Your task to perform on an android device: turn off picture-in-picture Image 0: 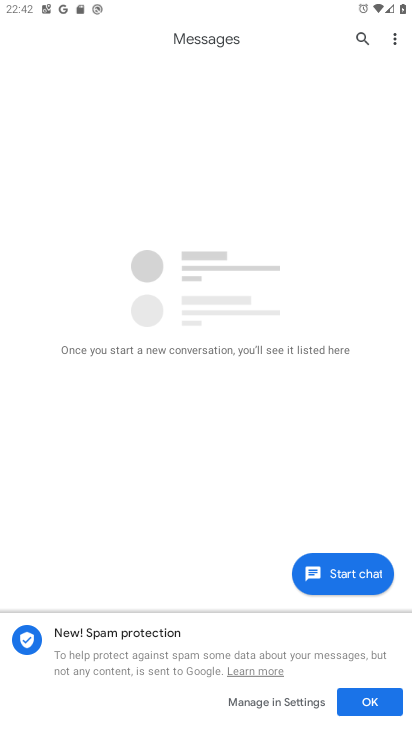
Step 0: press home button
Your task to perform on an android device: turn off picture-in-picture Image 1: 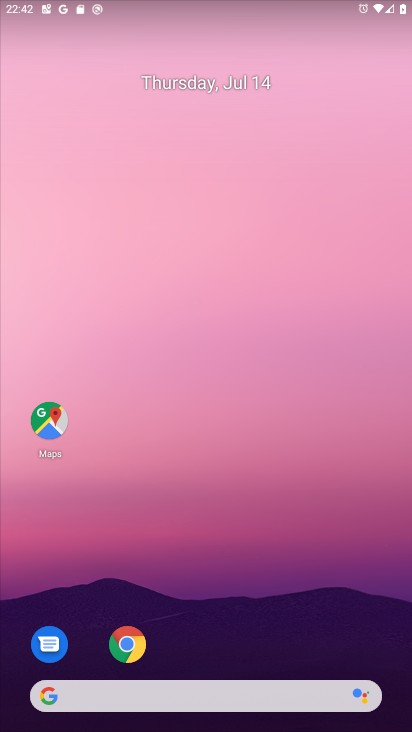
Step 1: drag from (194, 630) to (240, 14)
Your task to perform on an android device: turn off picture-in-picture Image 2: 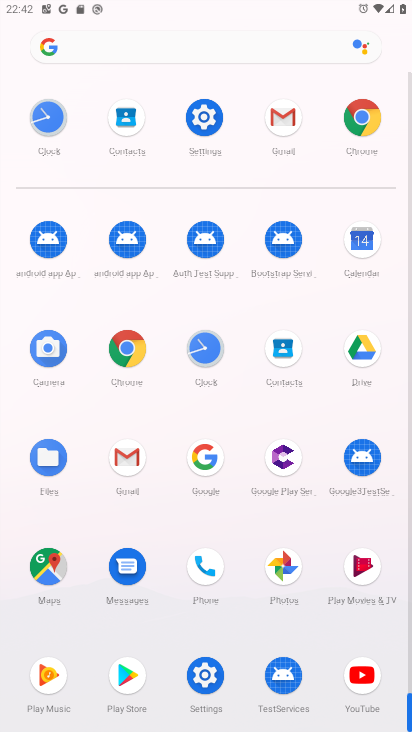
Step 2: press home button
Your task to perform on an android device: turn off picture-in-picture Image 3: 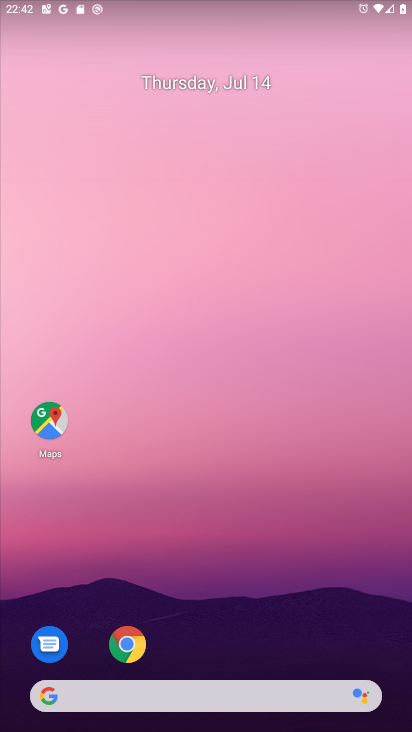
Step 3: click (134, 646)
Your task to perform on an android device: turn off picture-in-picture Image 4: 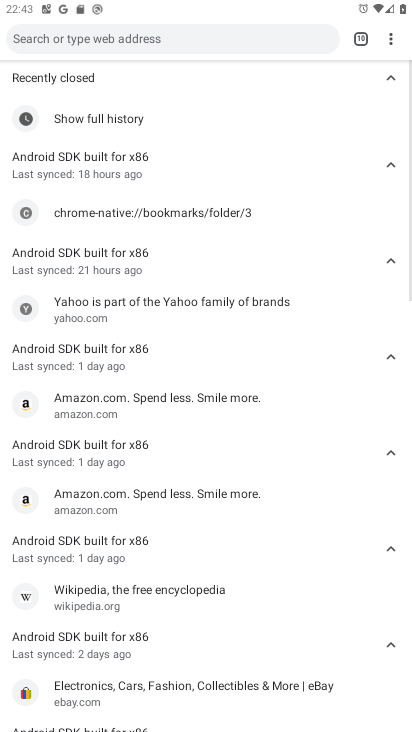
Step 4: click (389, 53)
Your task to perform on an android device: turn off picture-in-picture Image 5: 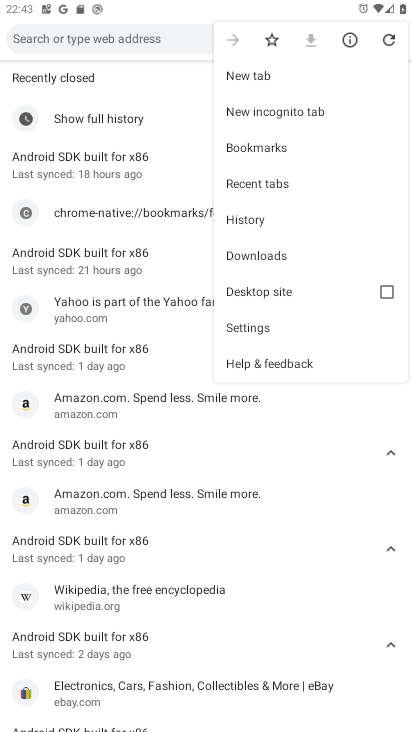
Step 5: click (286, 318)
Your task to perform on an android device: turn off picture-in-picture Image 6: 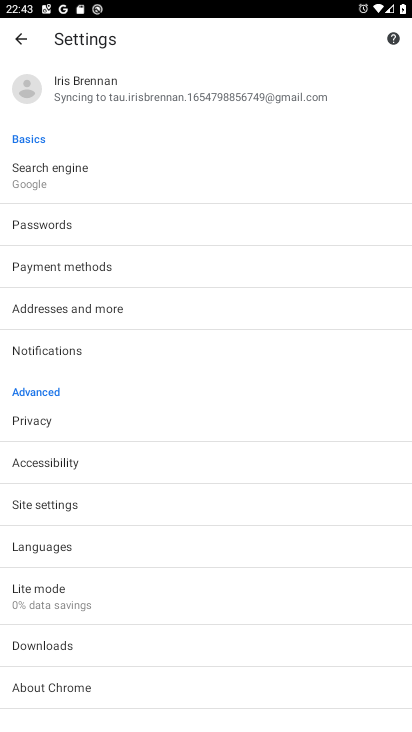
Step 6: task complete